Your task to perform on an android device: Open Google Maps Image 0: 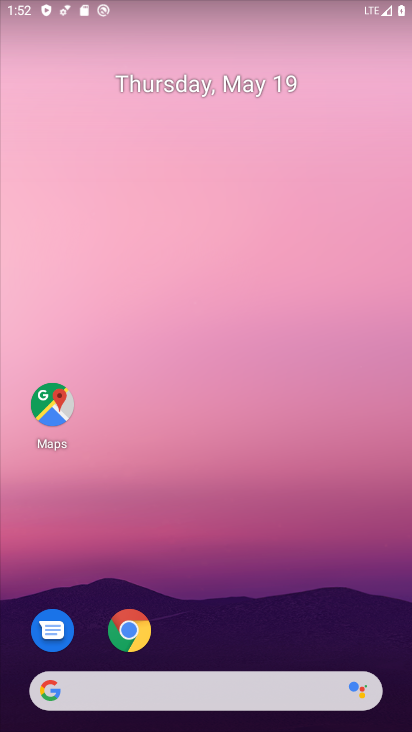
Step 0: drag from (209, 531) to (199, 16)
Your task to perform on an android device: Open Google Maps Image 1: 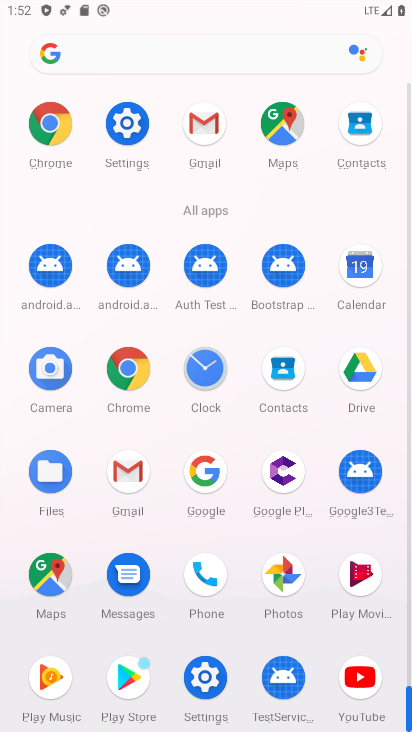
Step 1: drag from (13, 561) to (6, 296)
Your task to perform on an android device: Open Google Maps Image 2: 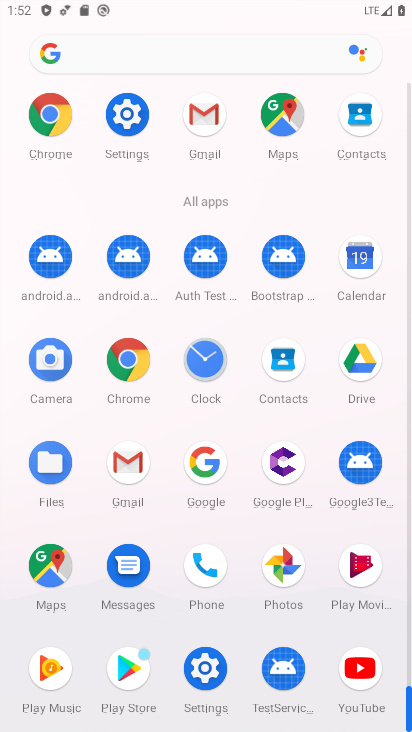
Step 2: click (277, 109)
Your task to perform on an android device: Open Google Maps Image 3: 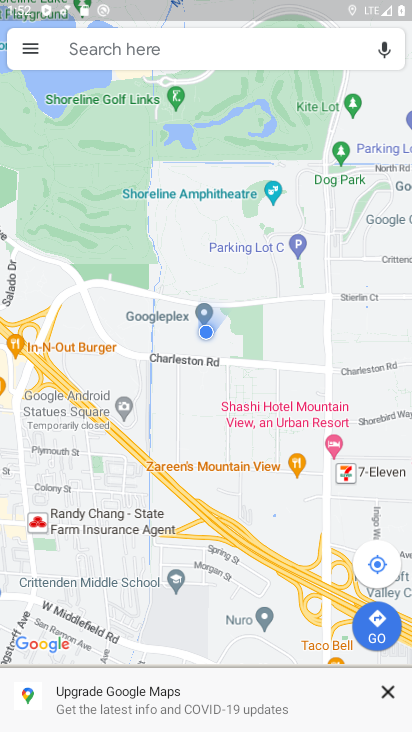
Step 3: task complete